Your task to perform on an android device: open a new tab in the chrome app Image 0: 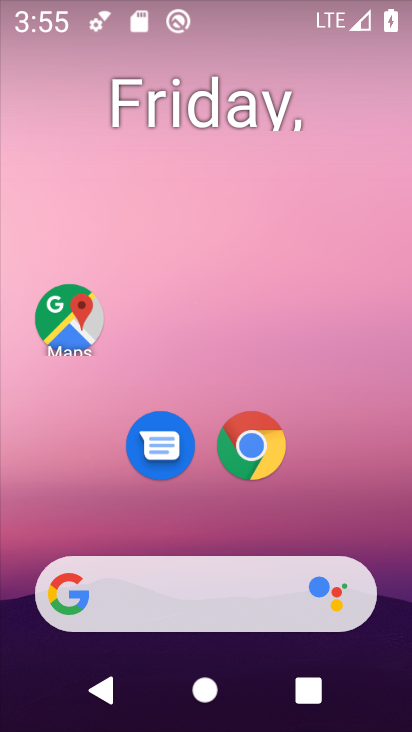
Step 0: drag from (386, 508) to (330, 154)
Your task to perform on an android device: open a new tab in the chrome app Image 1: 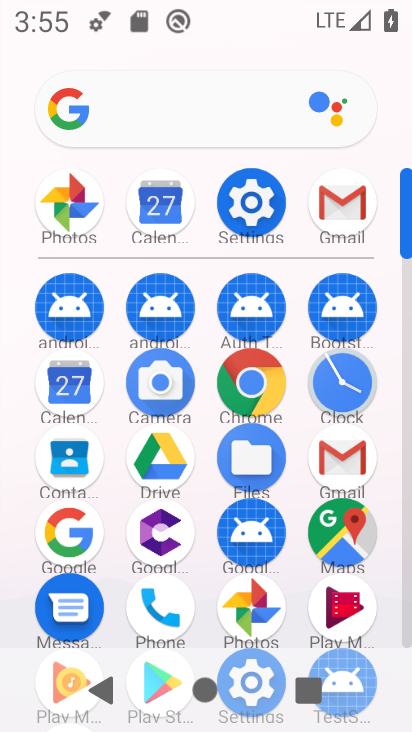
Step 1: click (258, 395)
Your task to perform on an android device: open a new tab in the chrome app Image 2: 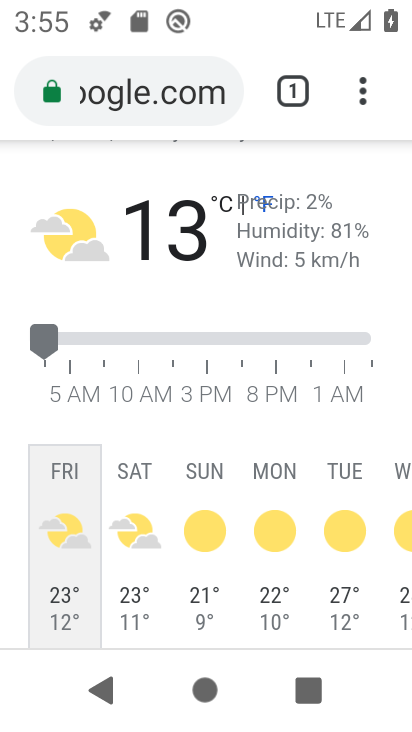
Step 2: click (366, 100)
Your task to perform on an android device: open a new tab in the chrome app Image 3: 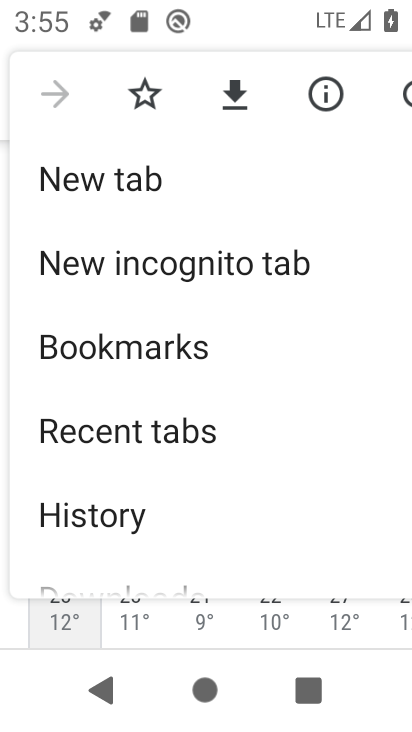
Step 3: click (124, 185)
Your task to perform on an android device: open a new tab in the chrome app Image 4: 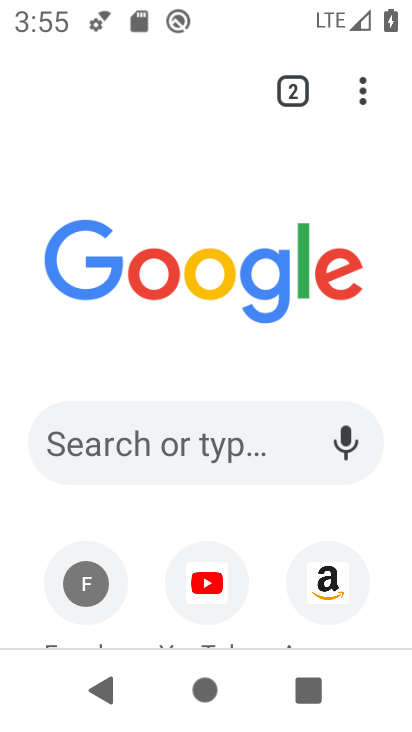
Step 4: task complete